Your task to perform on an android device: install app "Messages" Image 0: 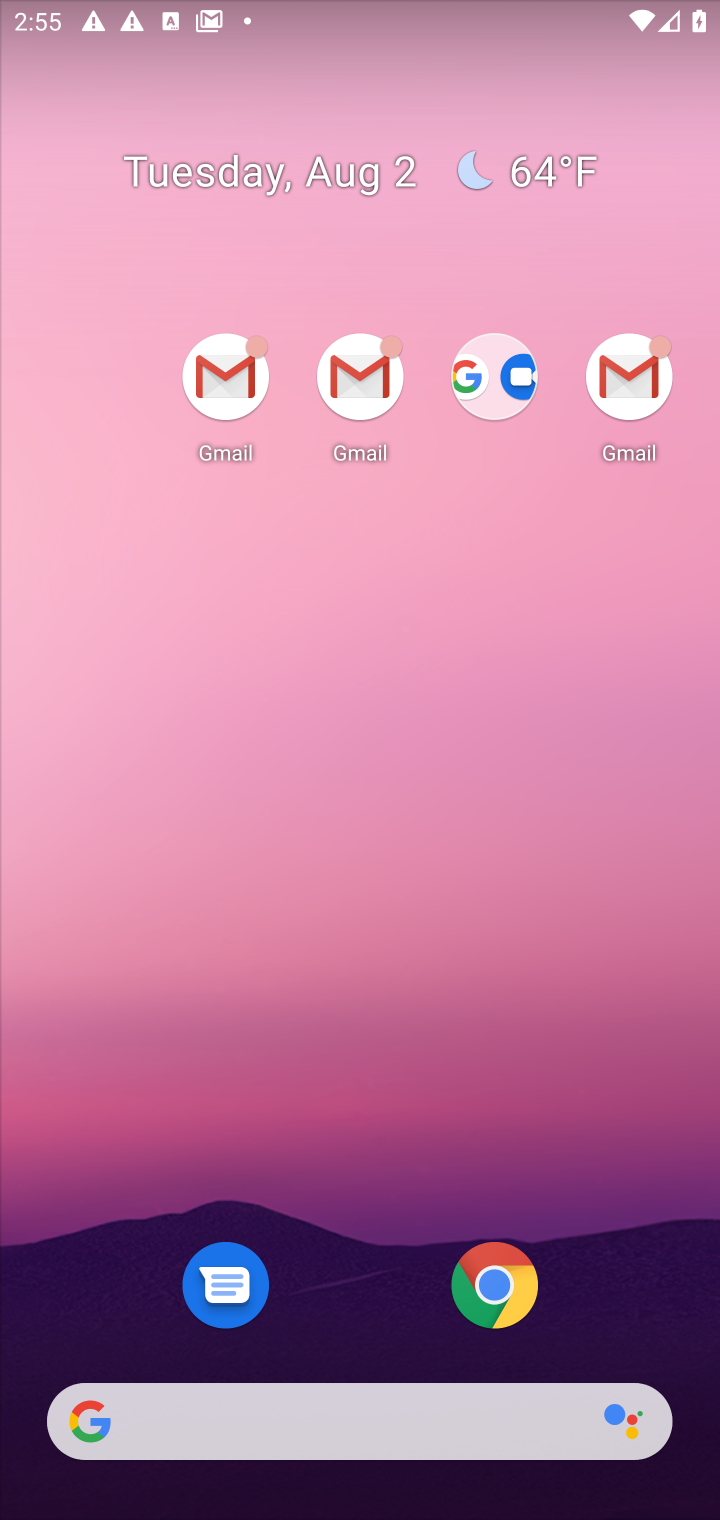
Step 0: drag from (576, 1231) to (474, 253)
Your task to perform on an android device: install app "Messages" Image 1: 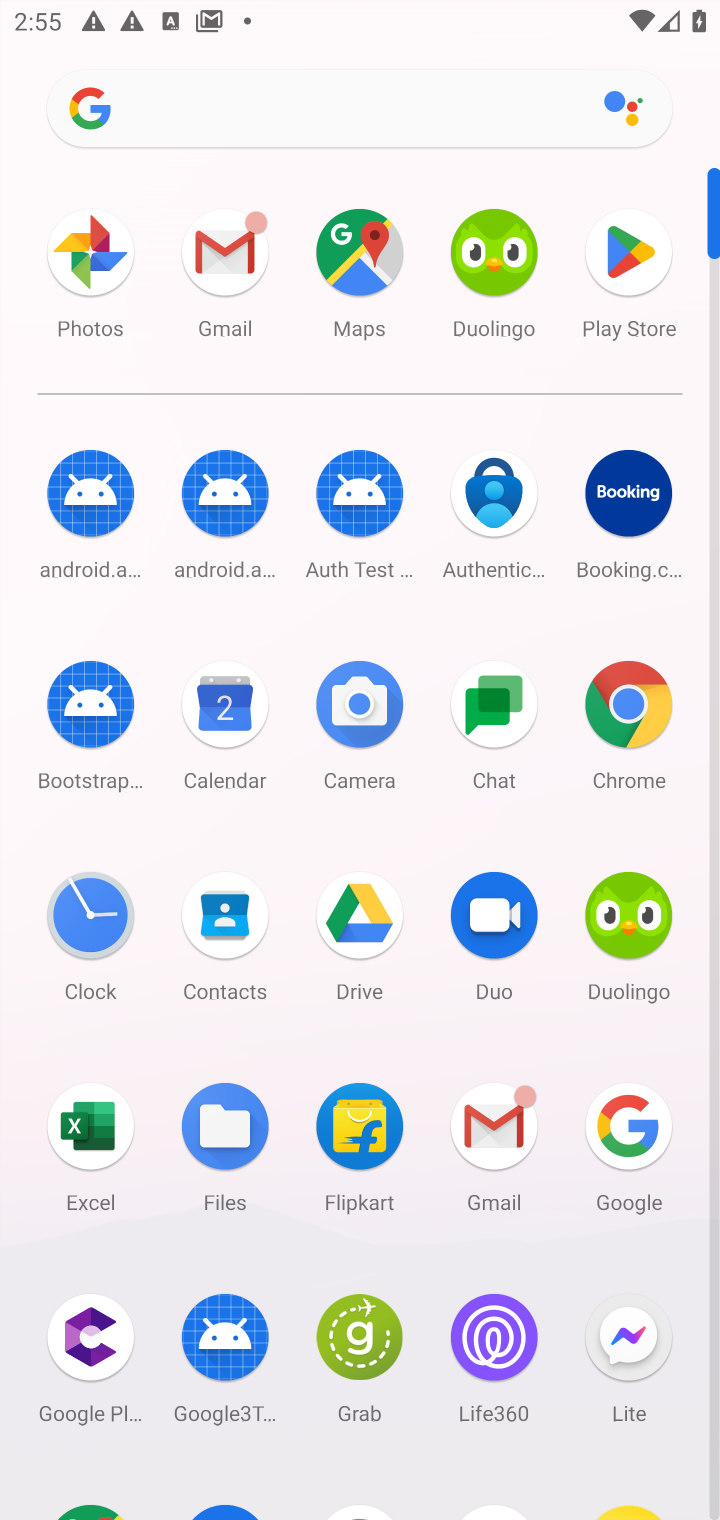
Step 1: drag from (547, 1265) to (449, 421)
Your task to perform on an android device: install app "Messages" Image 2: 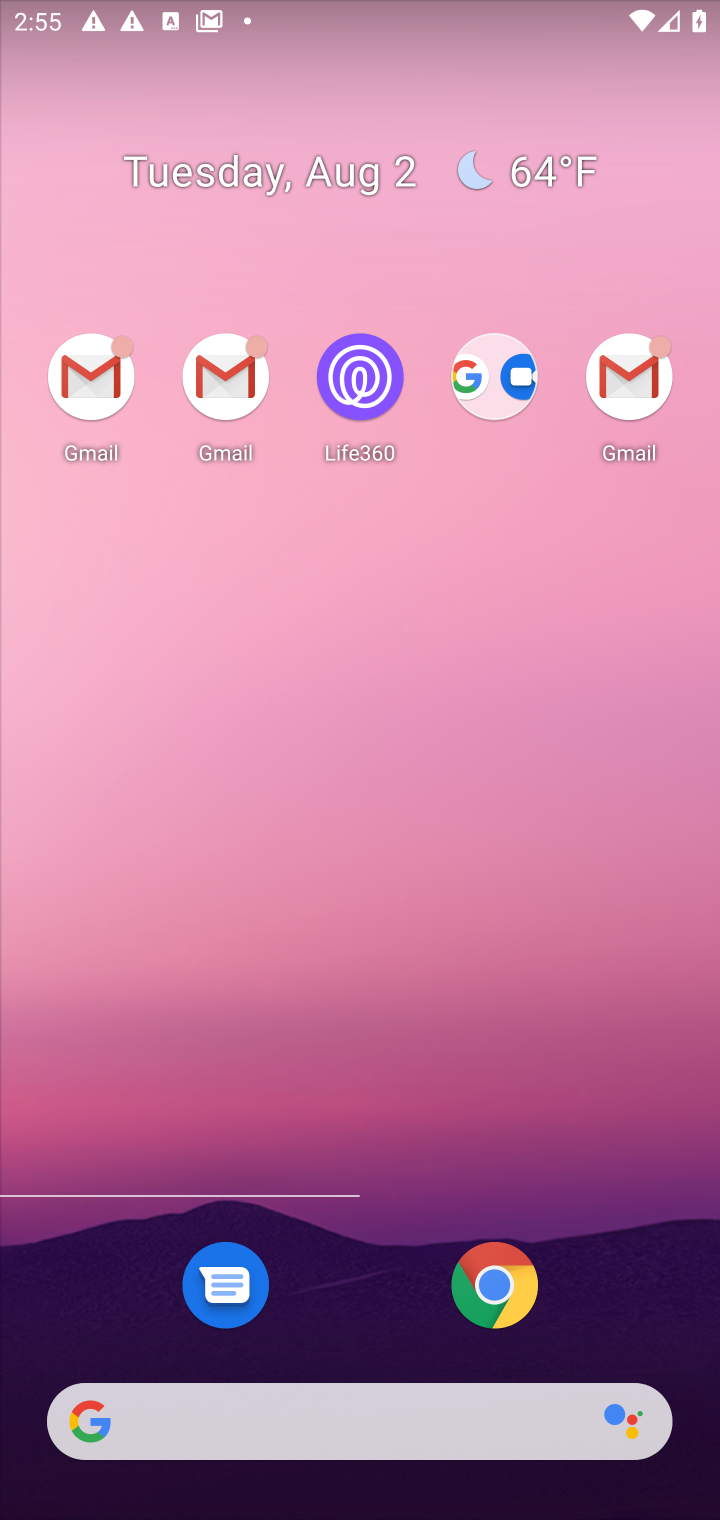
Step 2: drag from (477, 1164) to (505, 324)
Your task to perform on an android device: install app "Messages" Image 3: 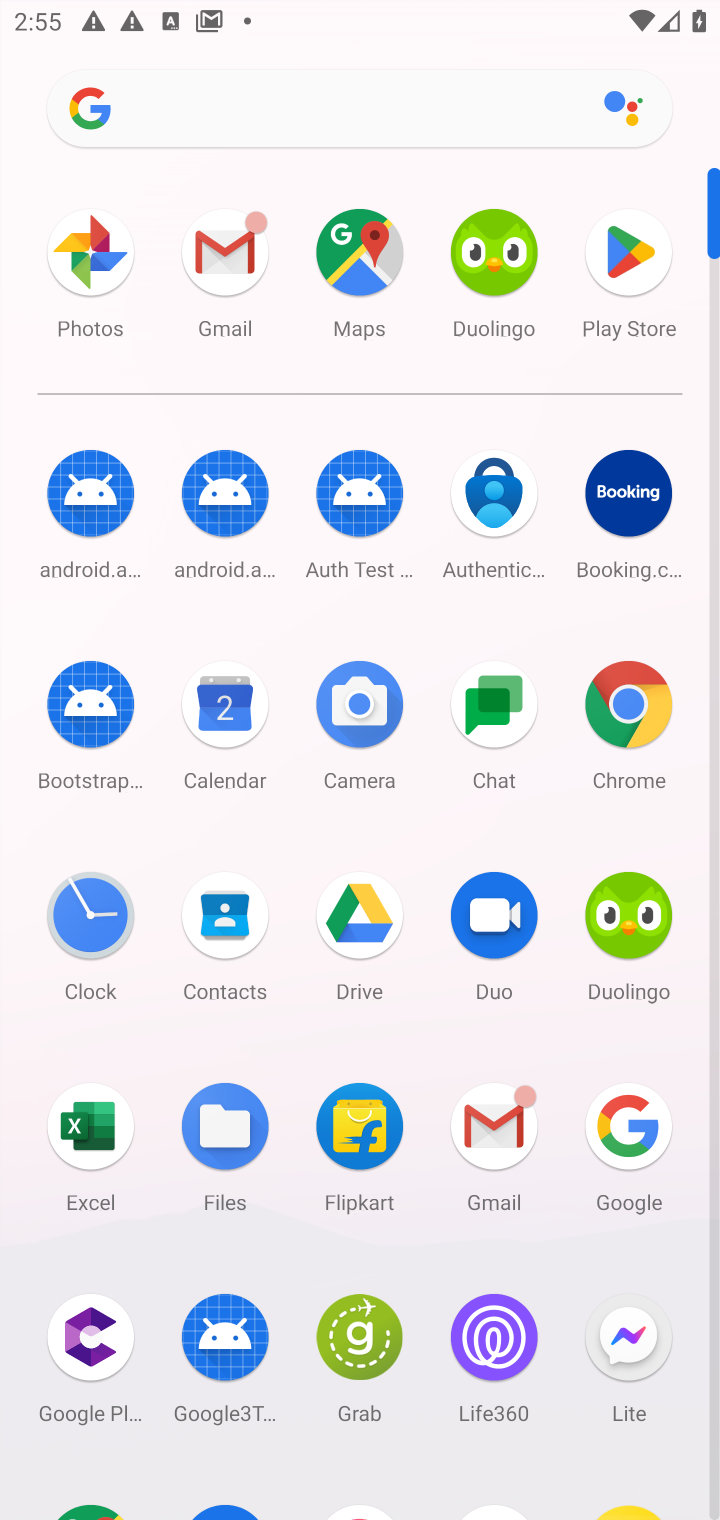
Step 3: drag from (555, 1034) to (556, 411)
Your task to perform on an android device: install app "Messages" Image 4: 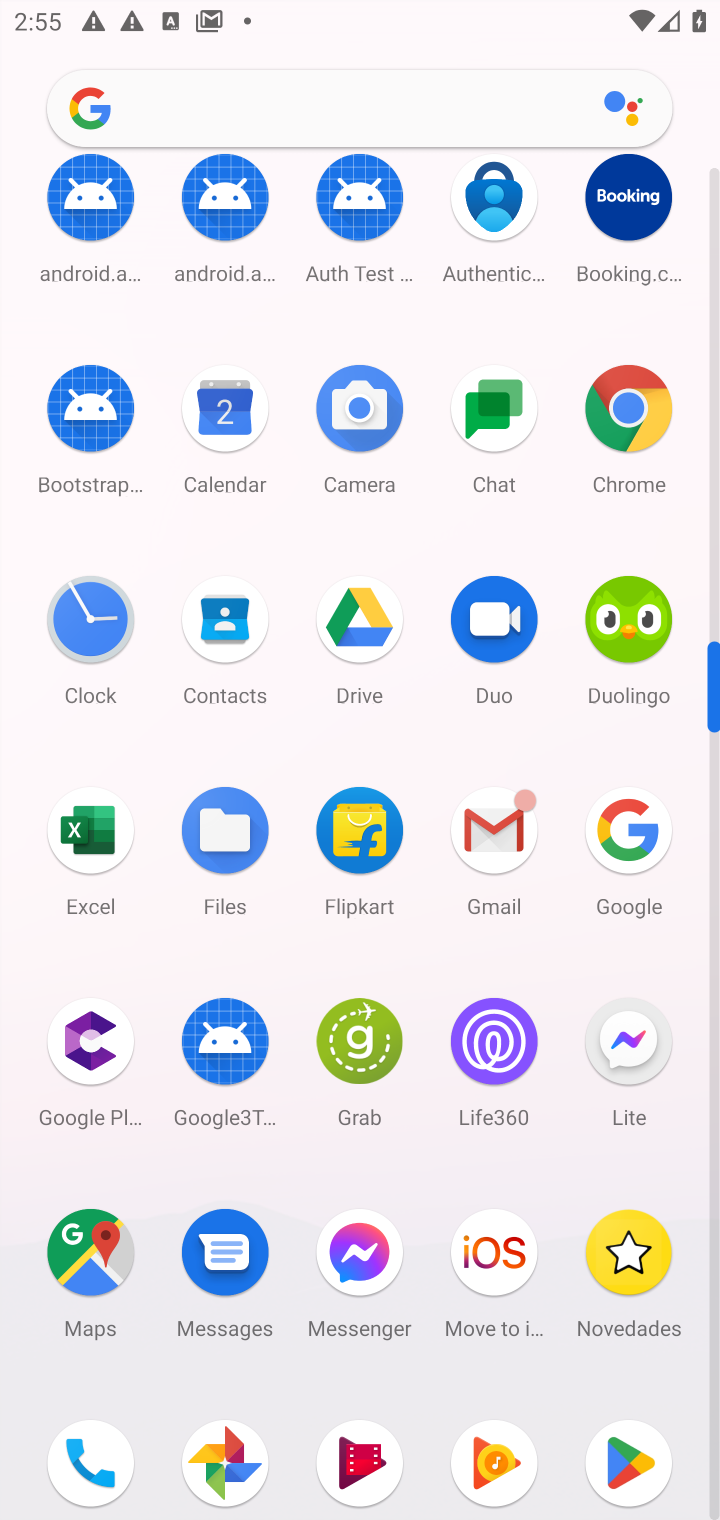
Step 4: click (624, 1456)
Your task to perform on an android device: install app "Messages" Image 5: 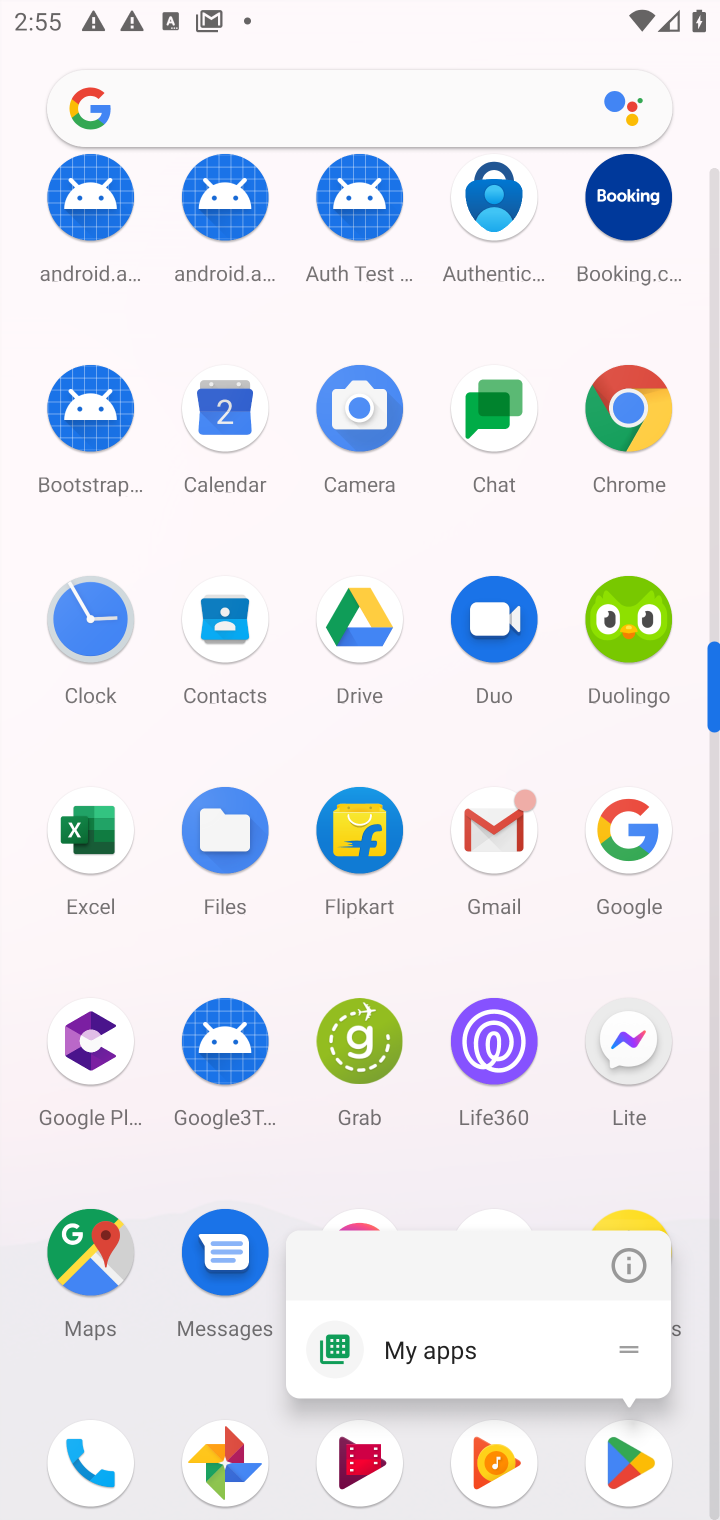
Step 5: click (624, 1456)
Your task to perform on an android device: install app "Messages" Image 6: 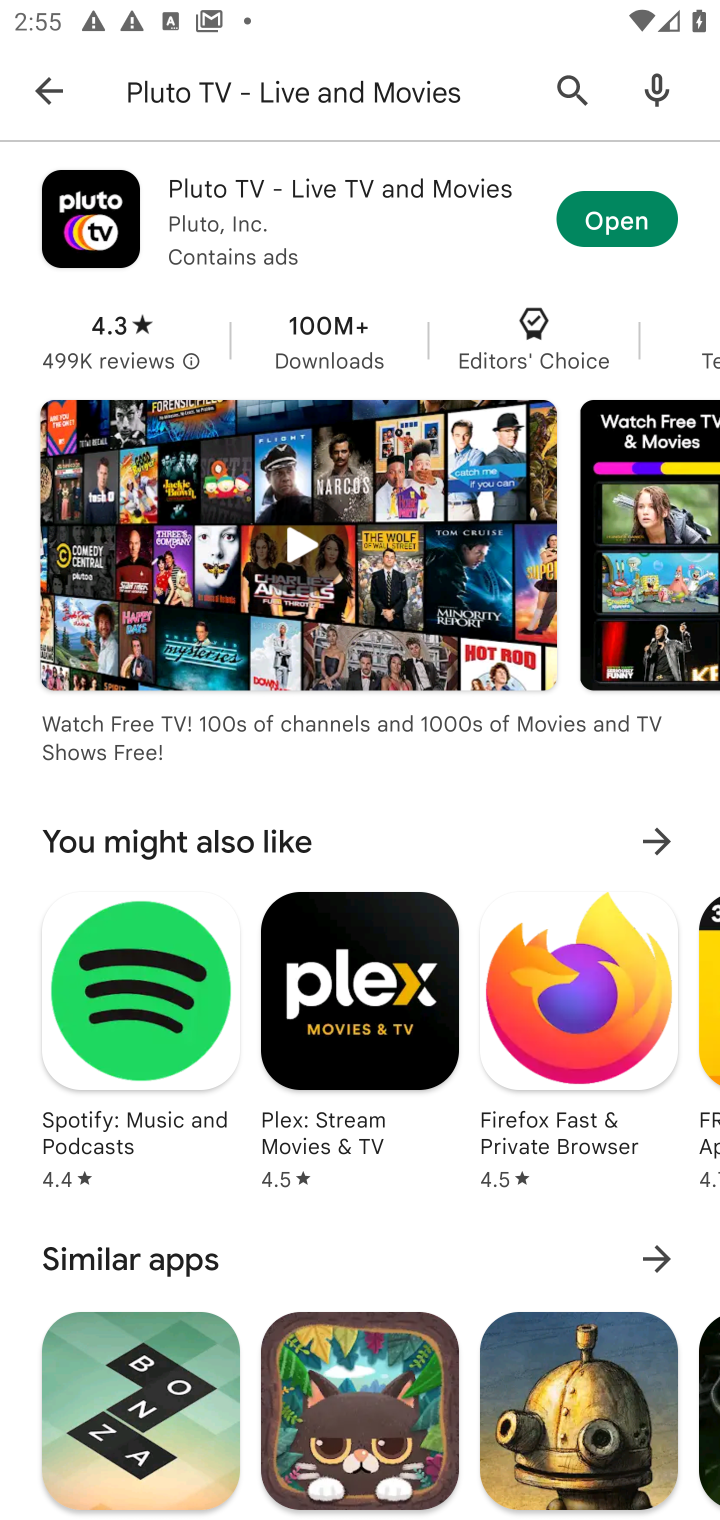
Step 6: click (323, 73)
Your task to perform on an android device: install app "Messages" Image 7: 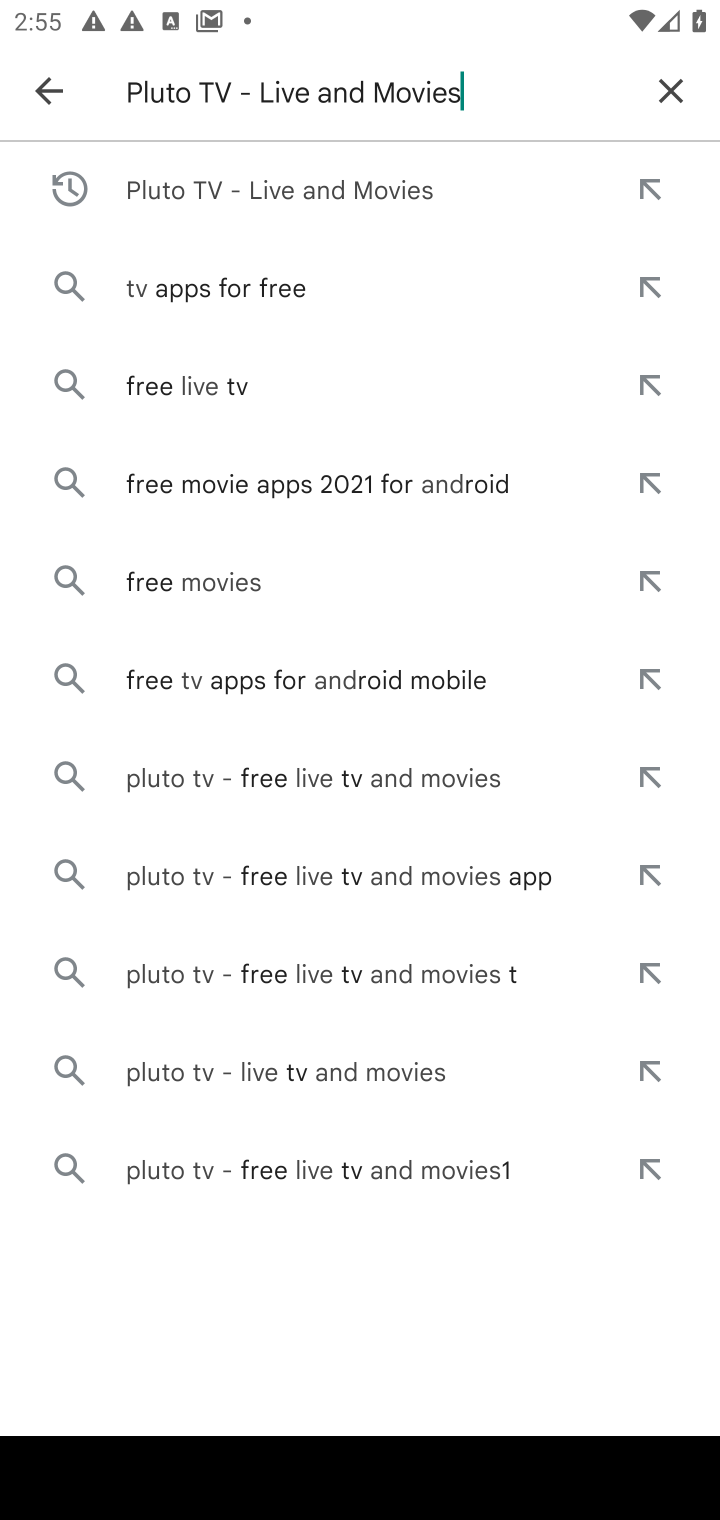
Step 7: click (668, 98)
Your task to perform on an android device: install app "Messages" Image 8: 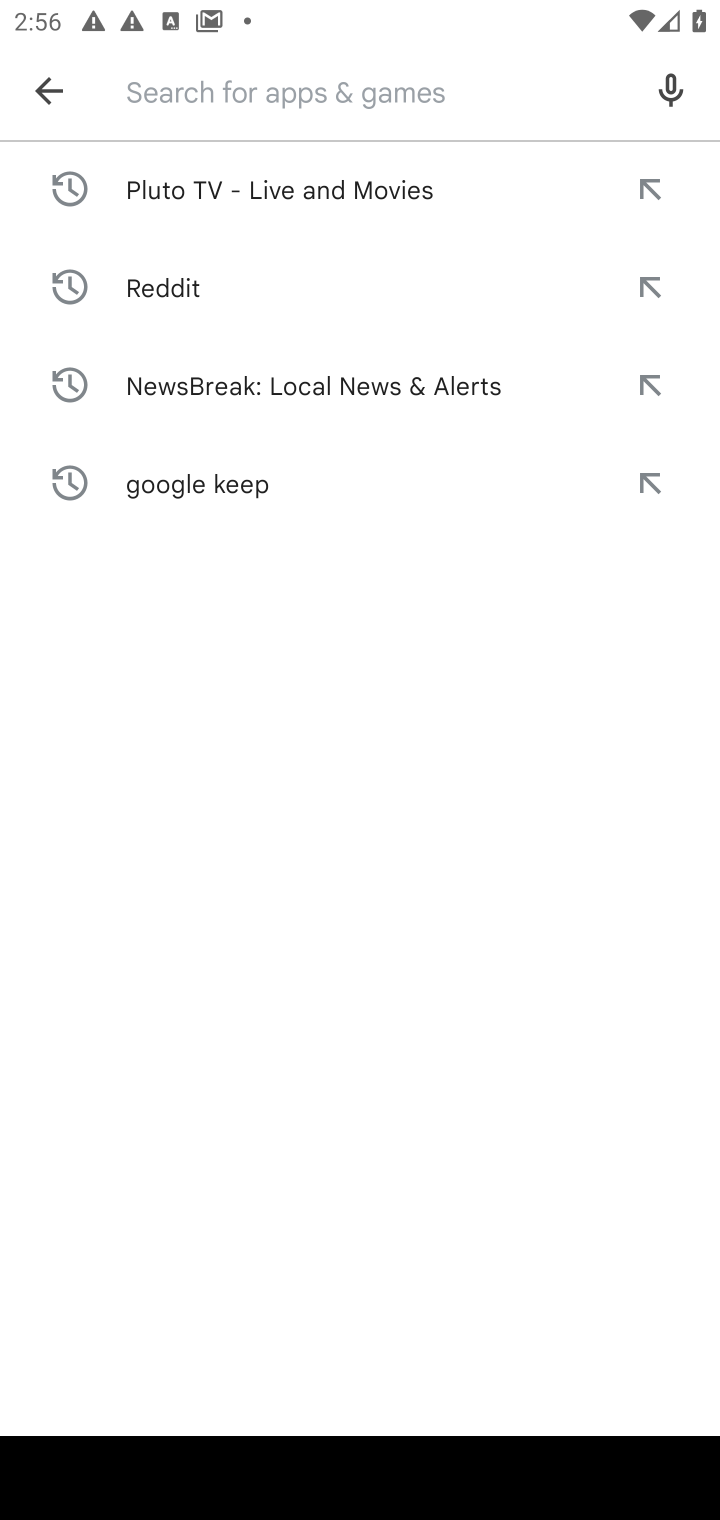
Step 8: type "Messages"
Your task to perform on an android device: install app "Messages" Image 9: 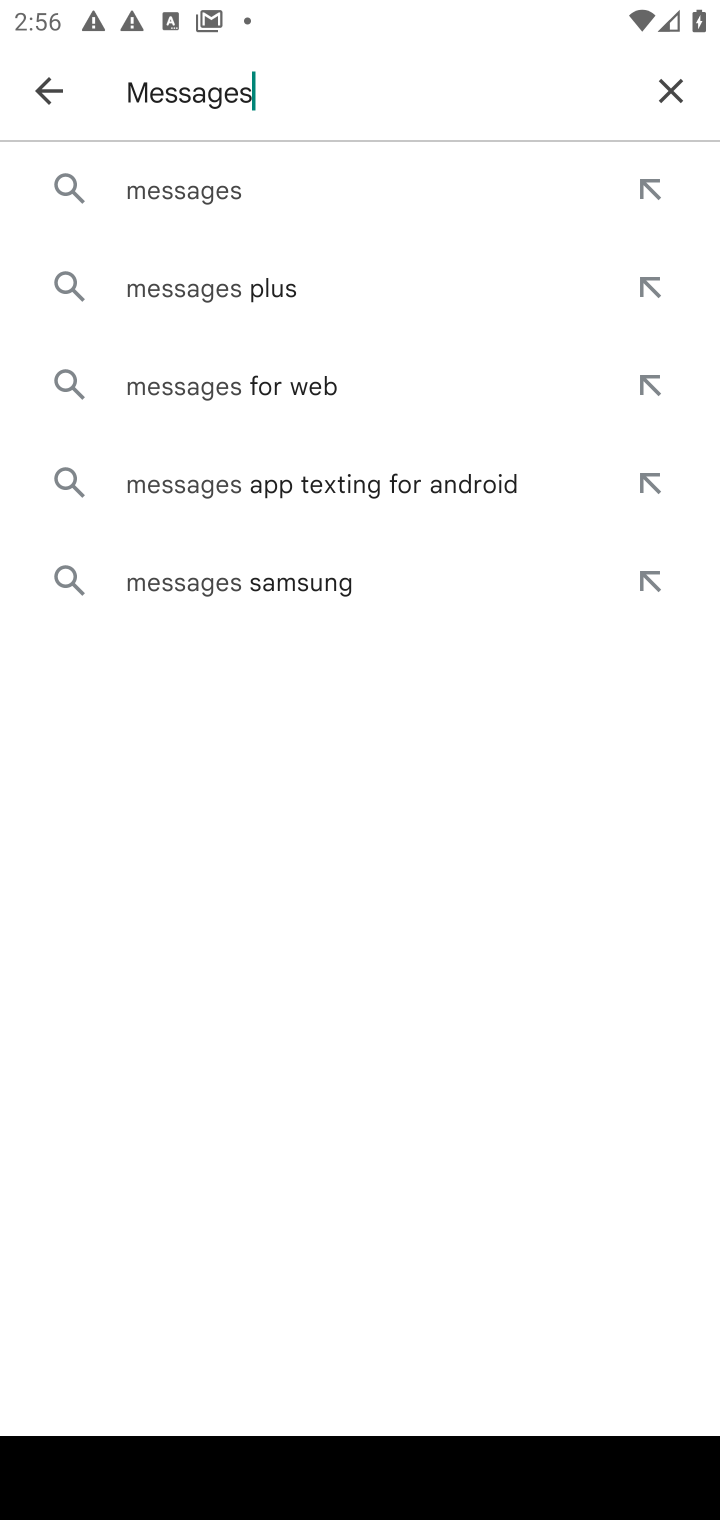
Step 9: press enter
Your task to perform on an android device: install app "Messages" Image 10: 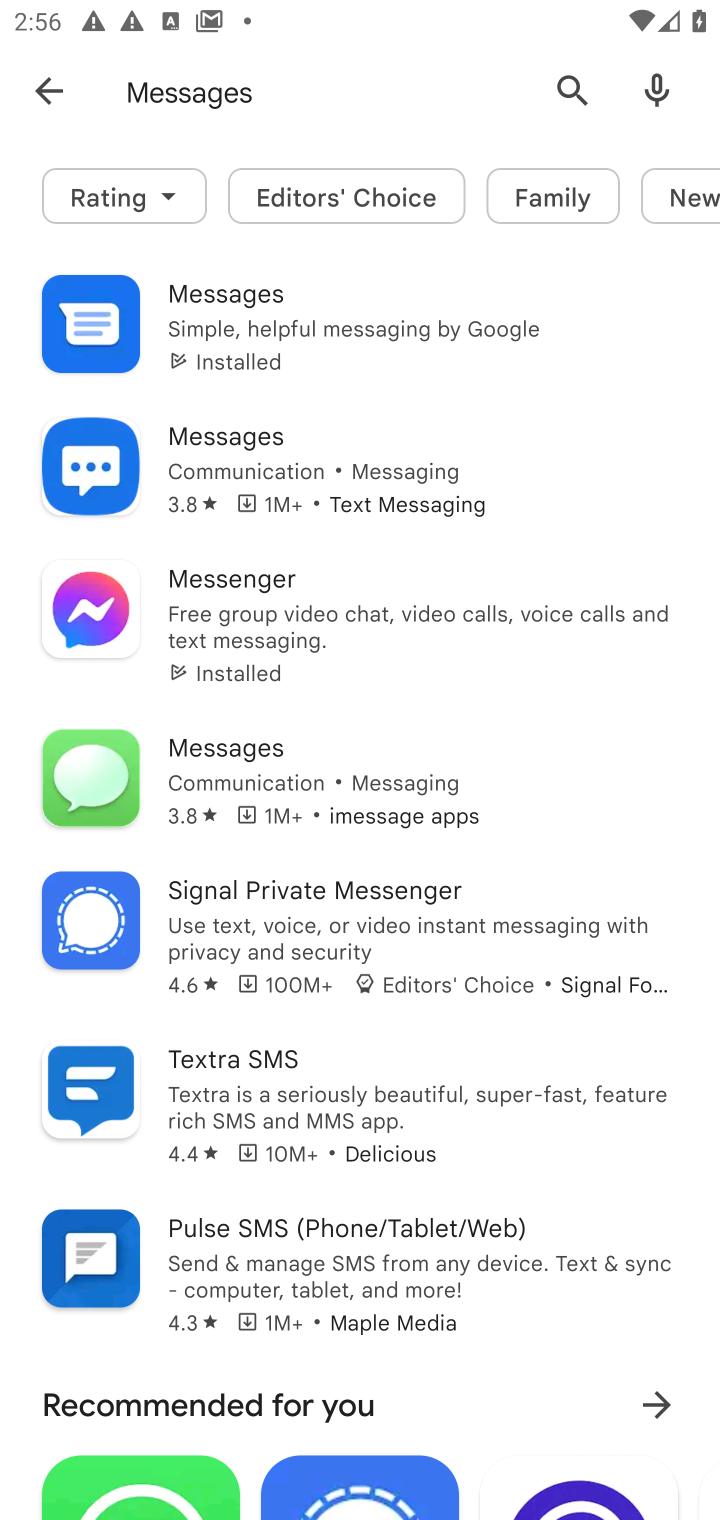
Step 10: click (413, 342)
Your task to perform on an android device: install app "Messages" Image 11: 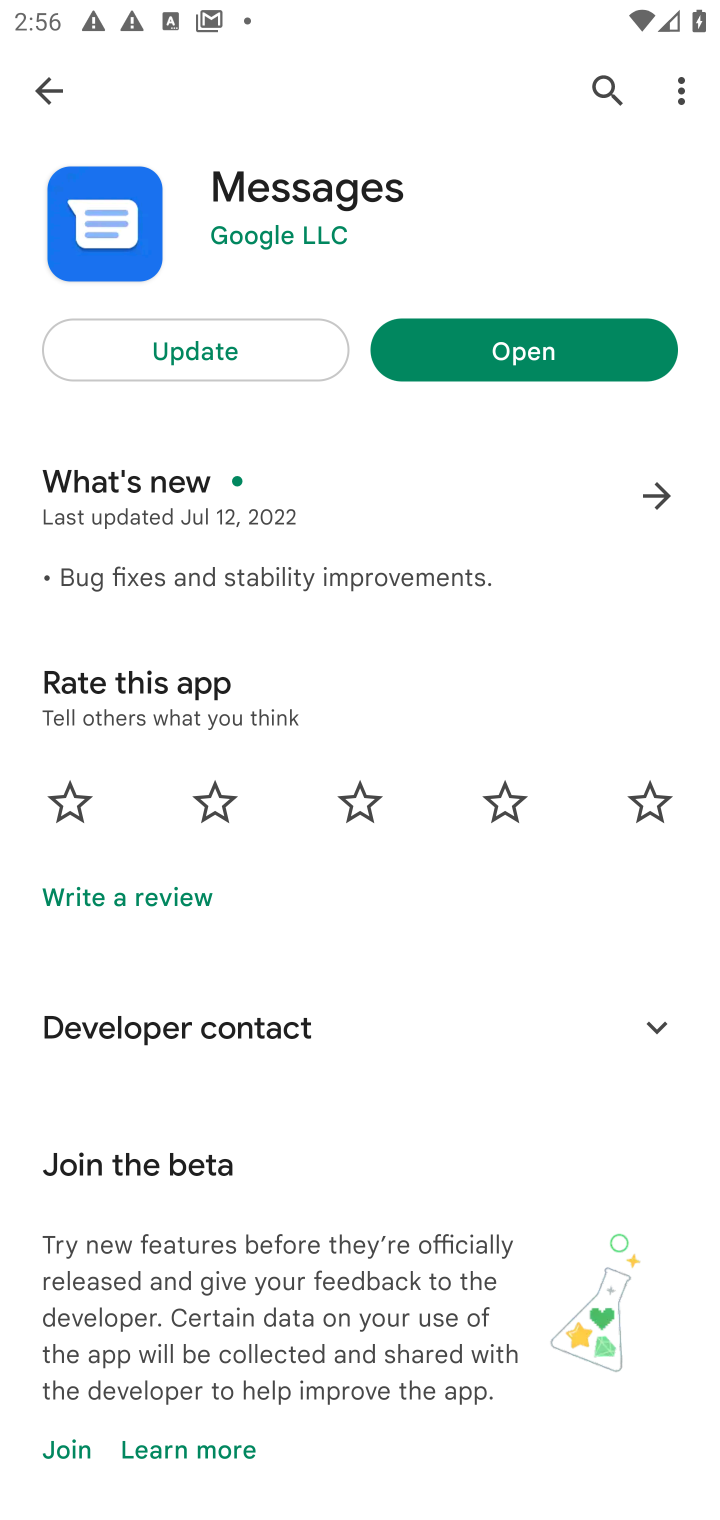
Step 11: task complete